Your task to perform on an android device: turn on the 12-hour format for clock Image 0: 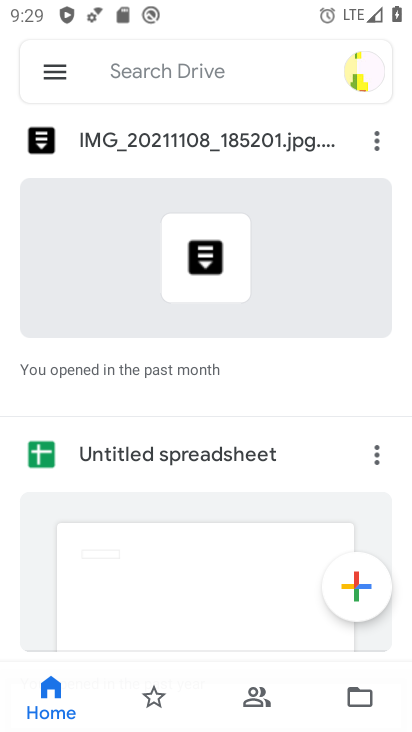
Step 0: press home button
Your task to perform on an android device: turn on the 12-hour format for clock Image 1: 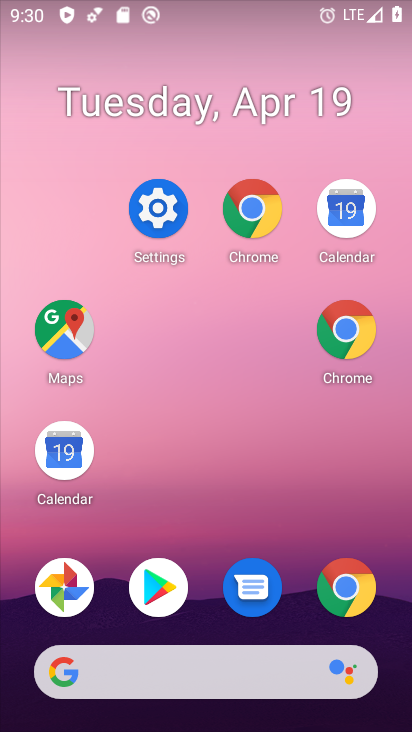
Step 1: drag from (299, 629) to (216, 165)
Your task to perform on an android device: turn on the 12-hour format for clock Image 2: 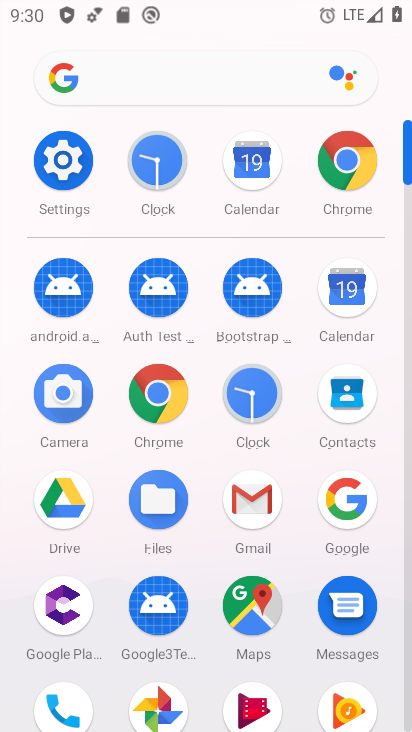
Step 2: click (163, 159)
Your task to perform on an android device: turn on the 12-hour format for clock Image 3: 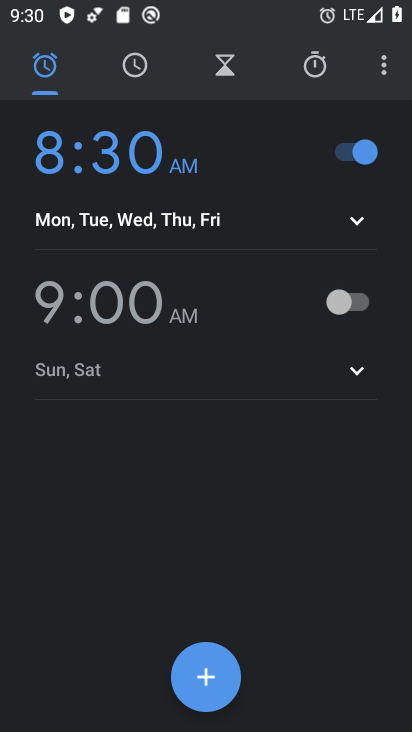
Step 3: click (380, 69)
Your task to perform on an android device: turn on the 12-hour format for clock Image 4: 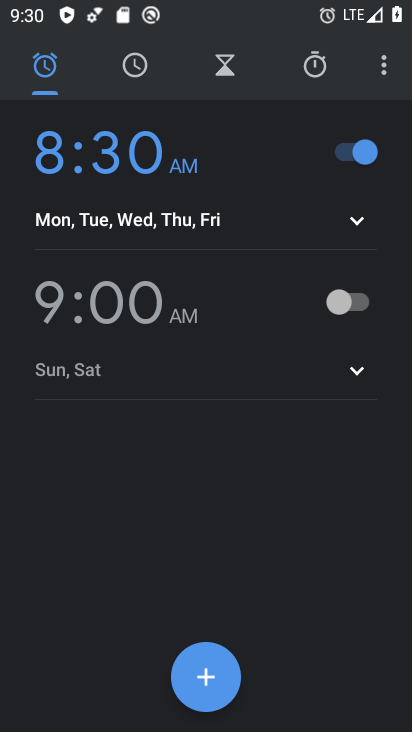
Step 4: click (380, 69)
Your task to perform on an android device: turn on the 12-hour format for clock Image 5: 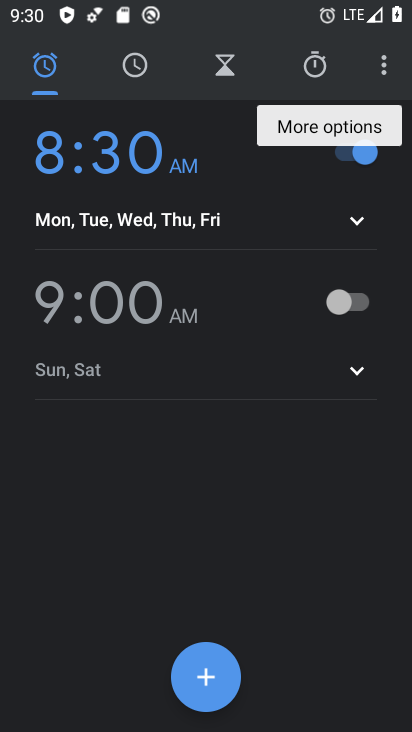
Step 5: click (380, 69)
Your task to perform on an android device: turn on the 12-hour format for clock Image 6: 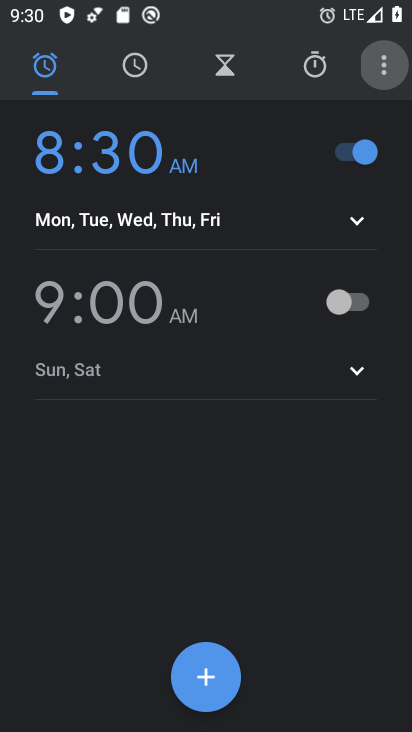
Step 6: click (380, 69)
Your task to perform on an android device: turn on the 12-hour format for clock Image 7: 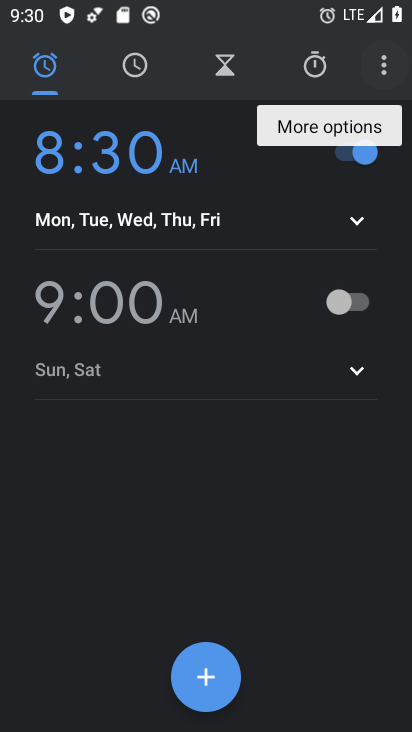
Step 7: click (380, 69)
Your task to perform on an android device: turn on the 12-hour format for clock Image 8: 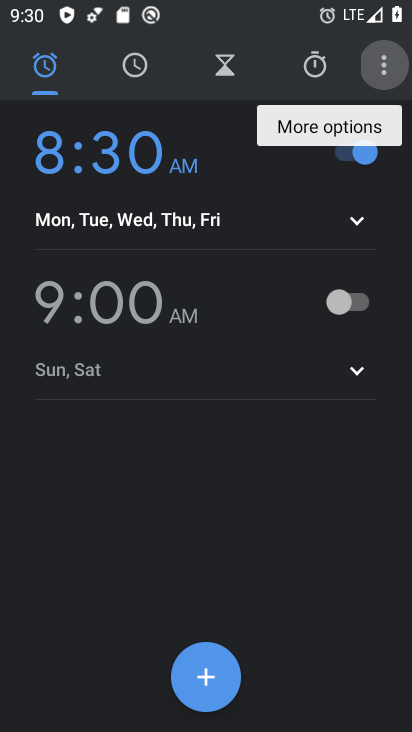
Step 8: click (380, 69)
Your task to perform on an android device: turn on the 12-hour format for clock Image 9: 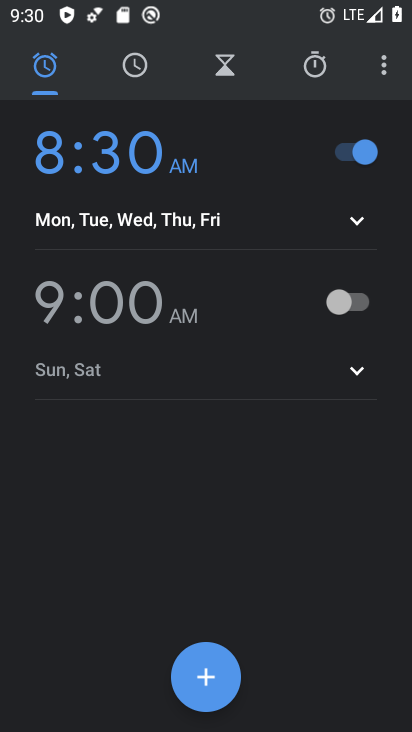
Step 9: click (381, 68)
Your task to perform on an android device: turn on the 12-hour format for clock Image 10: 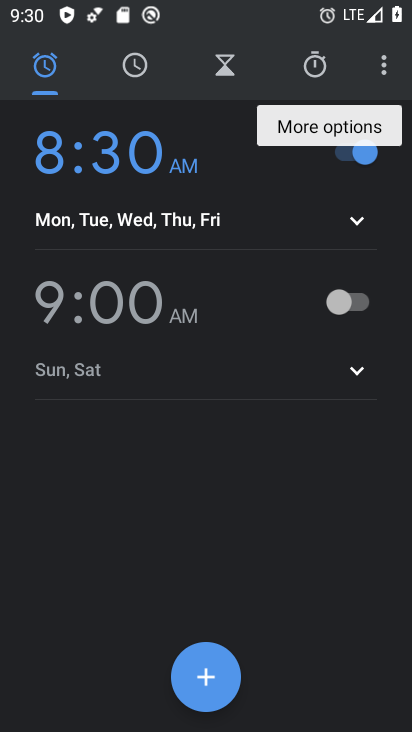
Step 10: click (381, 68)
Your task to perform on an android device: turn on the 12-hour format for clock Image 11: 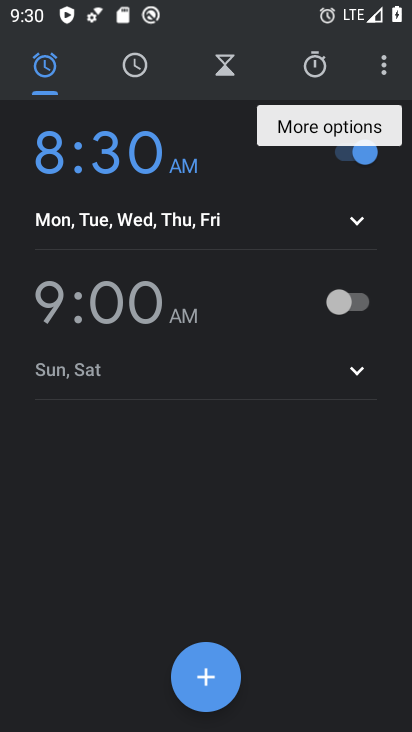
Step 11: click (381, 68)
Your task to perform on an android device: turn on the 12-hour format for clock Image 12: 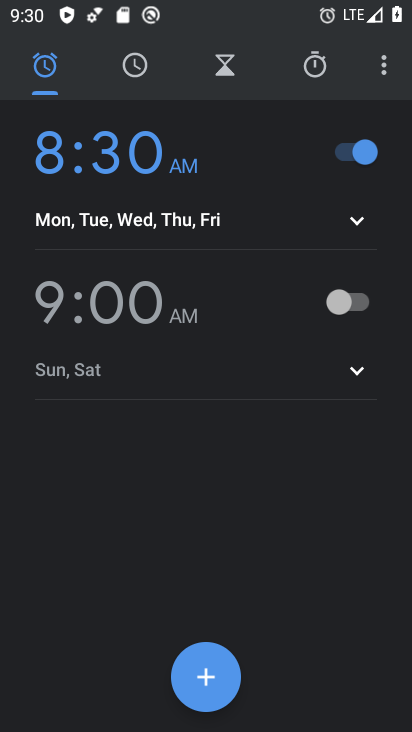
Step 12: click (383, 66)
Your task to perform on an android device: turn on the 12-hour format for clock Image 13: 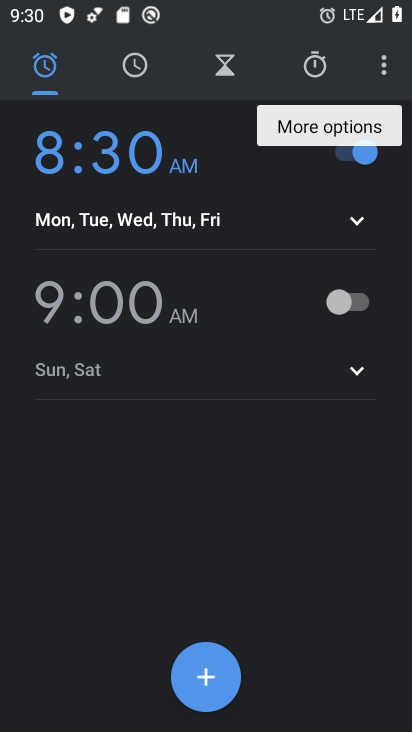
Step 13: click (384, 65)
Your task to perform on an android device: turn on the 12-hour format for clock Image 14: 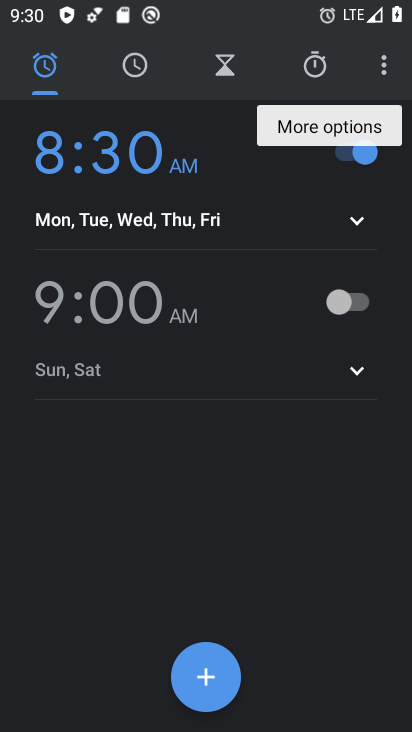
Step 14: click (384, 66)
Your task to perform on an android device: turn on the 12-hour format for clock Image 15: 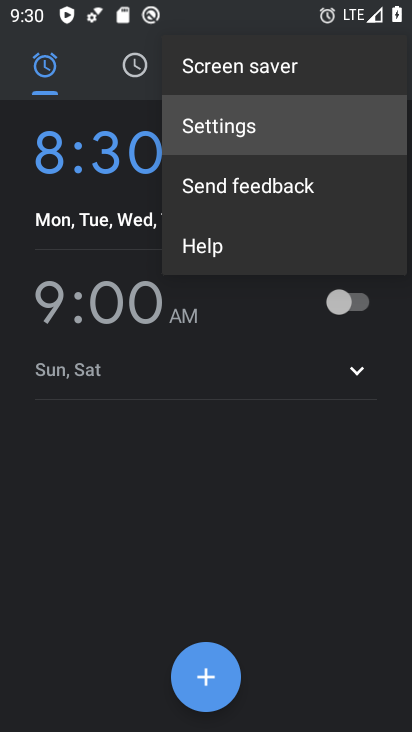
Step 15: click (346, 121)
Your task to perform on an android device: turn on the 12-hour format for clock Image 16: 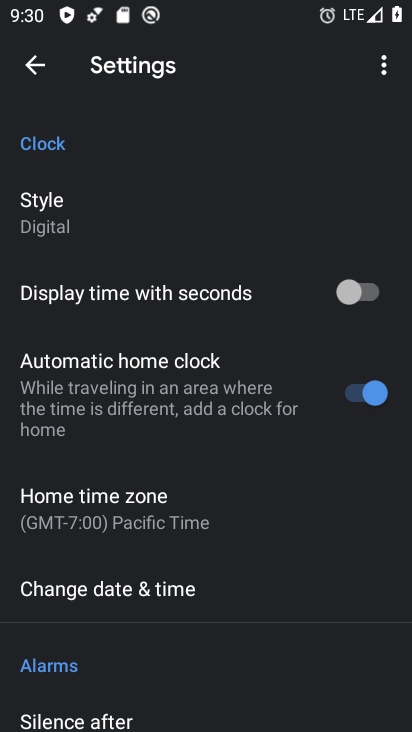
Step 16: drag from (193, 599) to (145, 216)
Your task to perform on an android device: turn on the 12-hour format for clock Image 17: 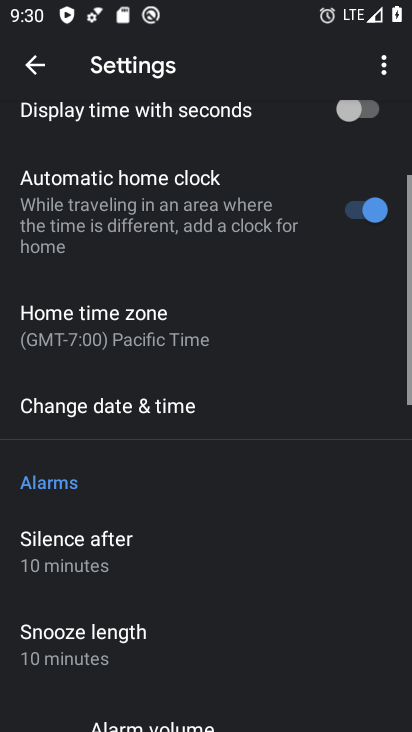
Step 17: drag from (293, 467) to (320, 181)
Your task to perform on an android device: turn on the 12-hour format for clock Image 18: 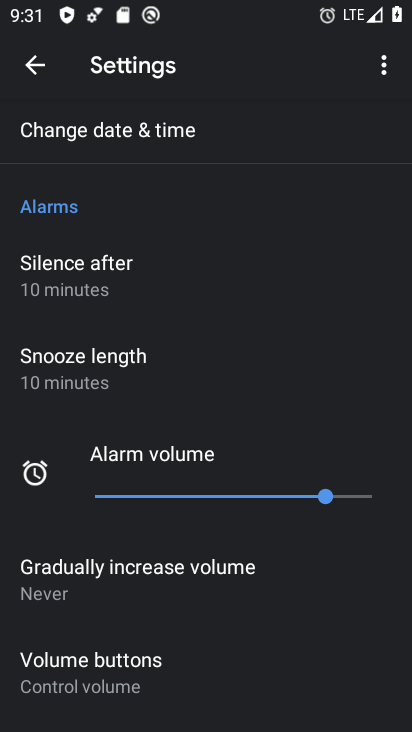
Step 18: click (125, 136)
Your task to perform on an android device: turn on the 12-hour format for clock Image 19: 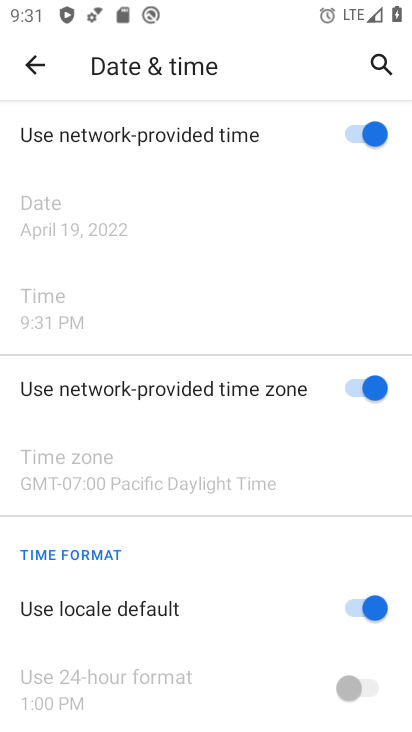
Step 19: task complete